Your task to perform on an android device: Show me productivity apps on the Play Store Image 0: 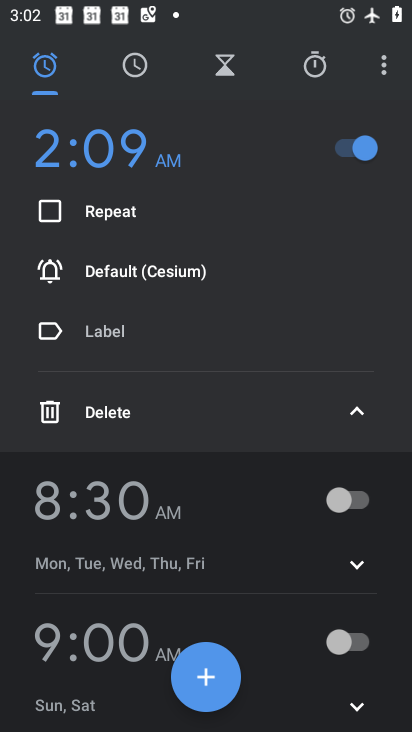
Step 0: press home button
Your task to perform on an android device: Show me productivity apps on the Play Store Image 1: 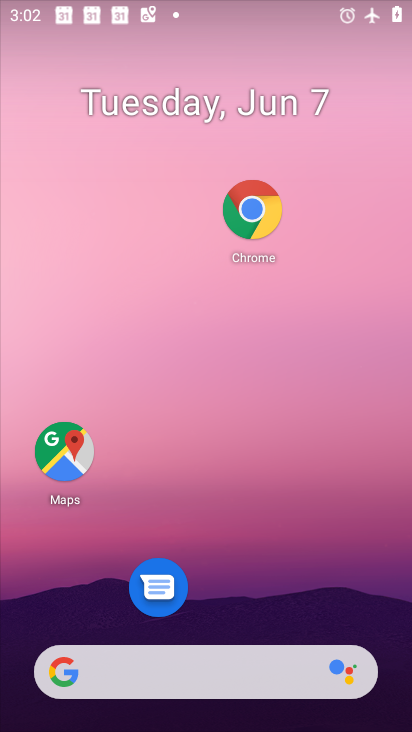
Step 1: drag from (219, 580) to (222, 465)
Your task to perform on an android device: Show me productivity apps on the Play Store Image 2: 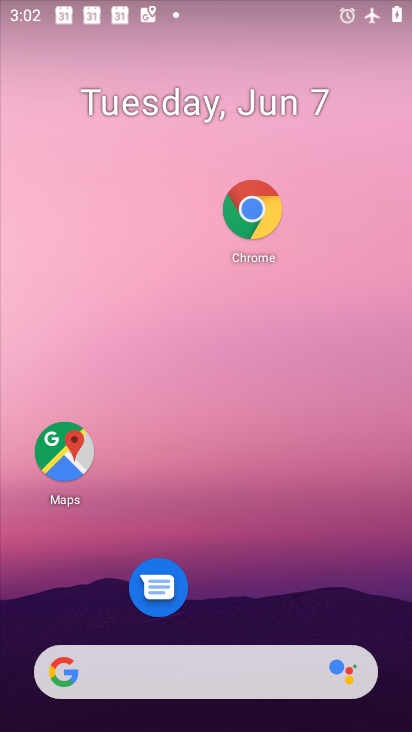
Step 2: drag from (212, 582) to (216, 350)
Your task to perform on an android device: Show me productivity apps on the Play Store Image 3: 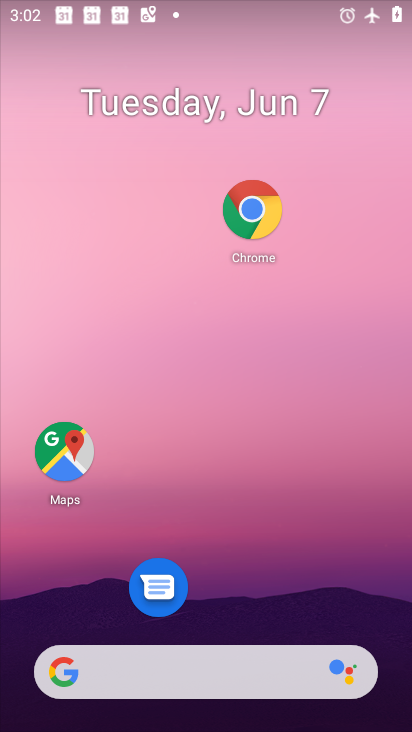
Step 3: drag from (209, 624) to (247, 249)
Your task to perform on an android device: Show me productivity apps on the Play Store Image 4: 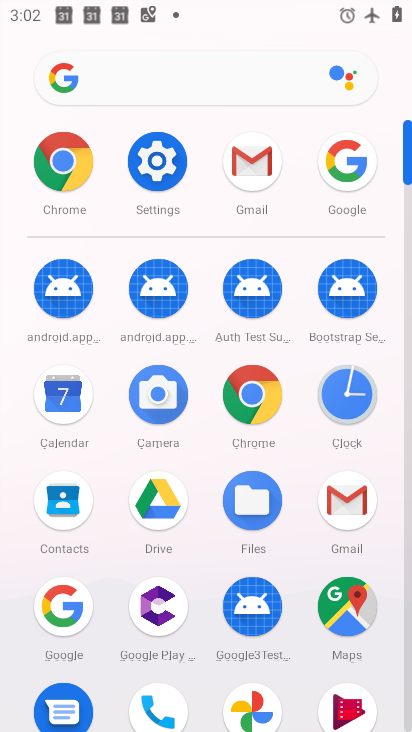
Step 4: drag from (176, 446) to (204, 240)
Your task to perform on an android device: Show me productivity apps on the Play Store Image 5: 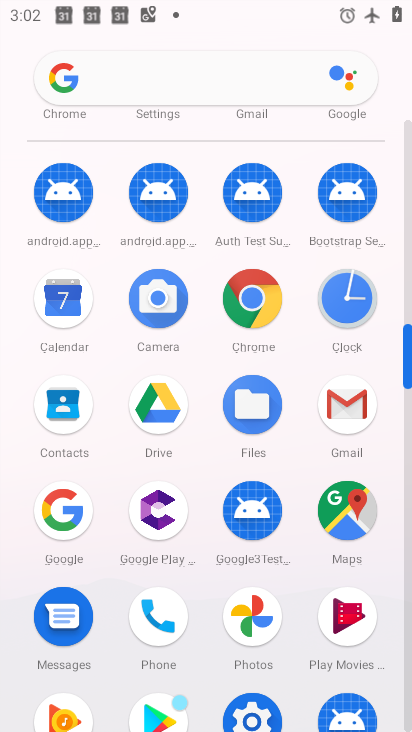
Step 5: drag from (227, 476) to (233, 348)
Your task to perform on an android device: Show me productivity apps on the Play Store Image 6: 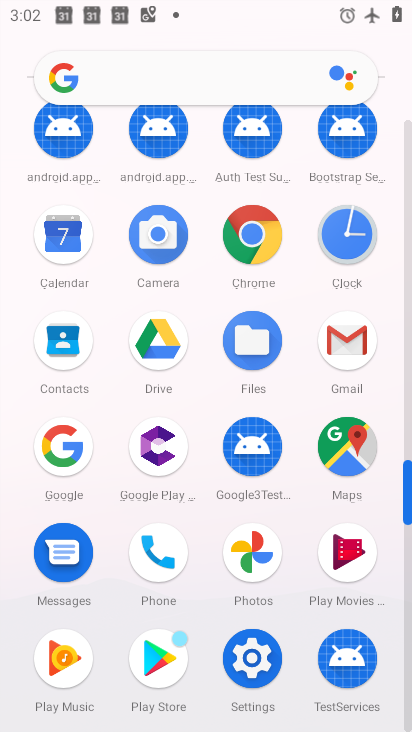
Step 6: click (173, 665)
Your task to perform on an android device: Show me productivity apps on the Play Store Image 7: 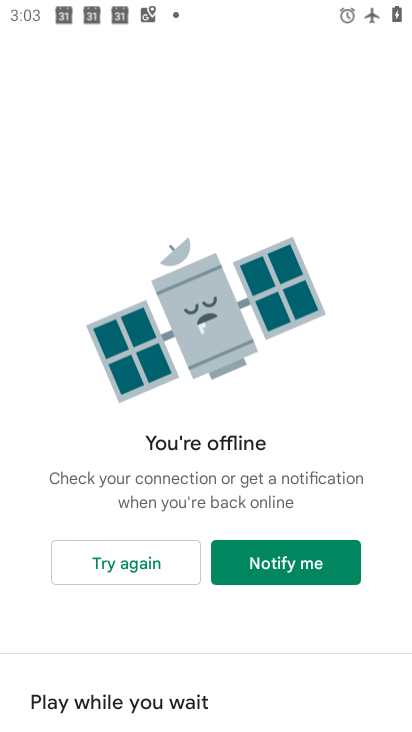
Step 7: task complete